Your task to perform on an android device: Go to Maps Image 0: 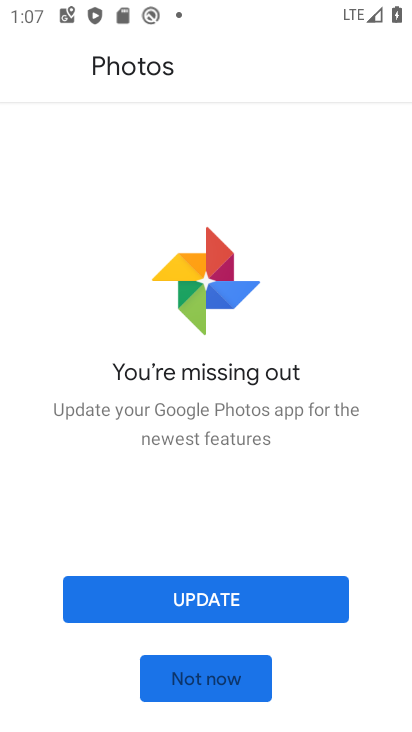
Step 0: press home button
Your task to perform on an android device: Go to Maps Image 1: 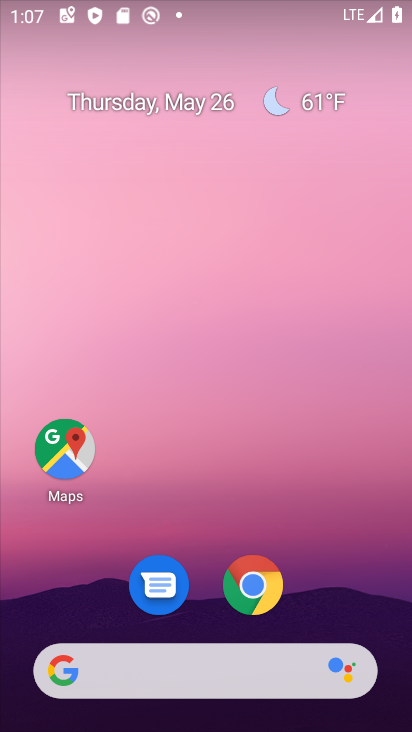
Step 1: click (71, 440)
Your task to perform on an android device: Go to Maps Image 2: 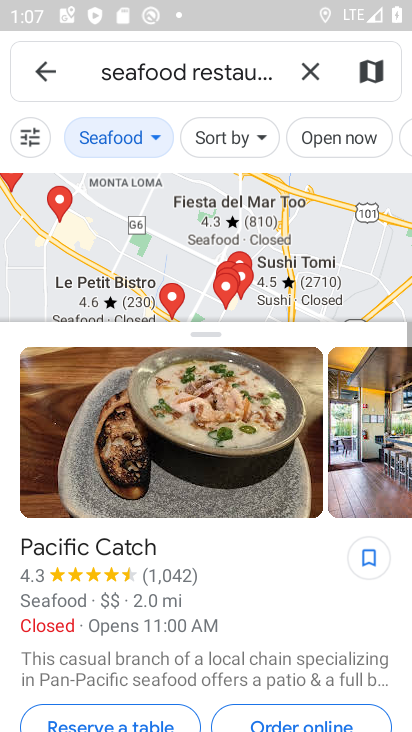
Step 2: click (312, 72)
Your task to perform on an android device: Go to Maps Image 3: 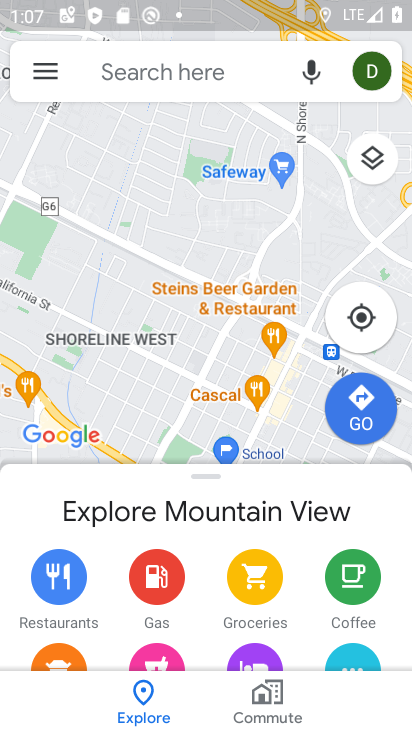
Step 3: task complete